Your task to perform on an android device: Open the map Image 0: 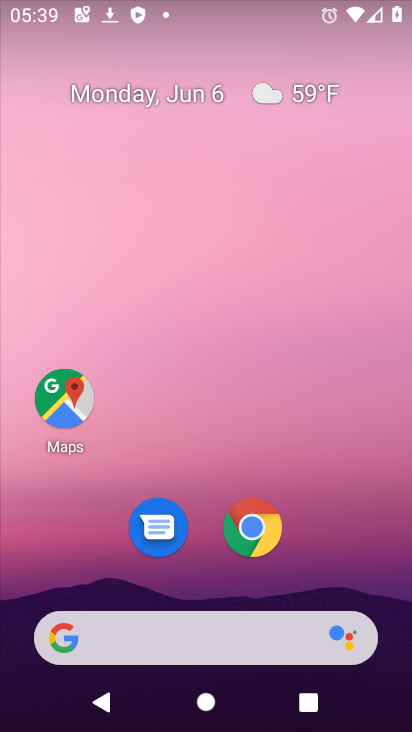
Step 0: click (69, 399)
Your task to perform on an android device: Open the map Image 1: 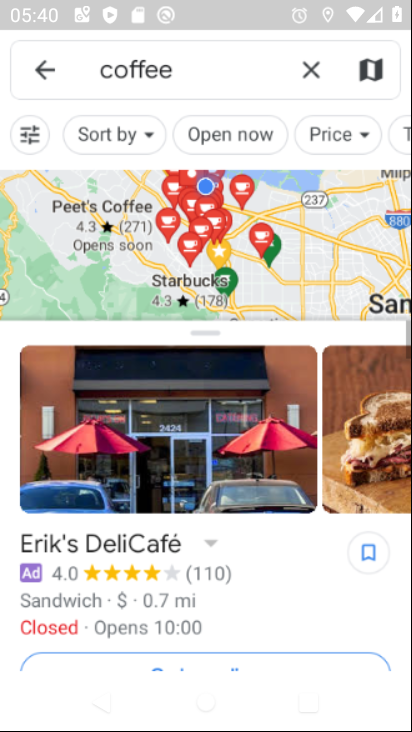
Step 1: task complete